Your task to perform on an android device: Open privacy settings Image 0: 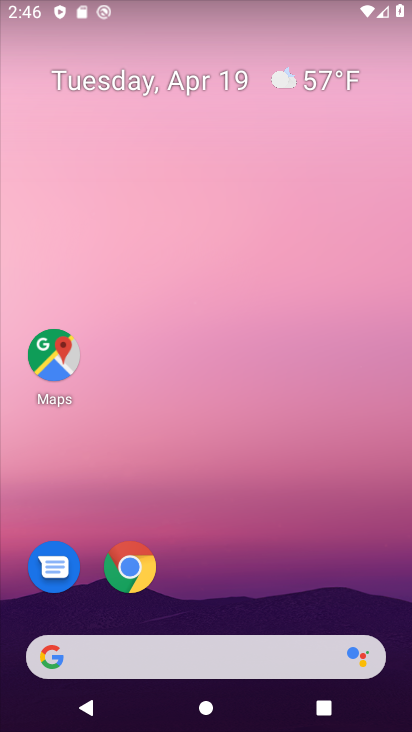
Step 0: drag from (388, 613) to (361, 86)
Your task to perform on an android device: Open privacy settings Image 1: 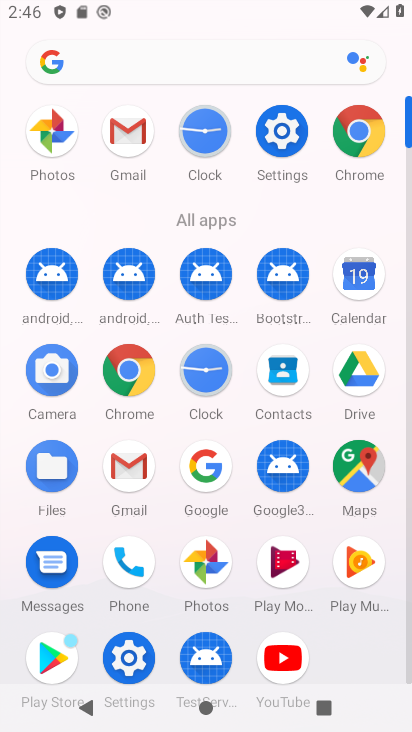
Step 1: click (276, 136)
Your task to perform on an android device: Open privacy settings Image 2: 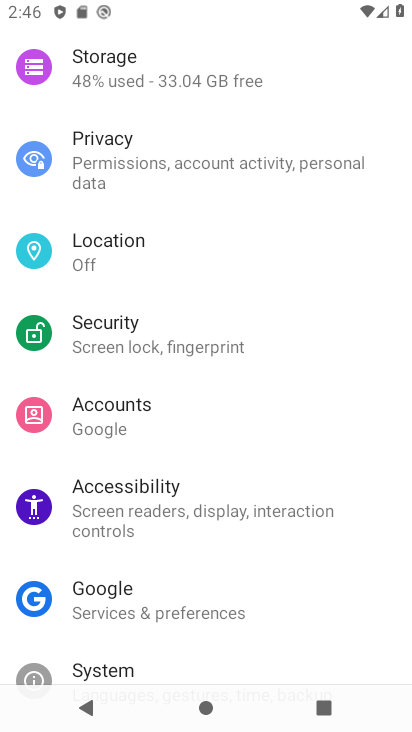
Step 2: drag from (379, 282) to (386, 406)
Your task to perform on an android device: Open privacy settings Image 3: 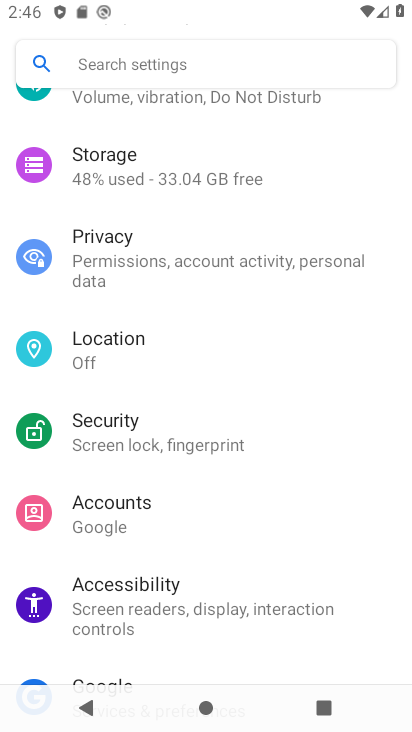
Step 3: drag from (376, 231) to (389, 422)
Your task to perform on an android device: Open privacy settings Image 4: 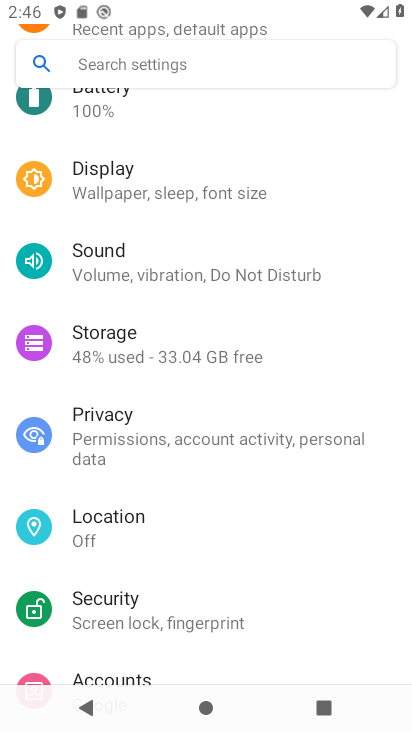
Step 4: drag from (387, 237) to (375, 434)
Your task to perform on an android device: Open privacy settings Image 5: 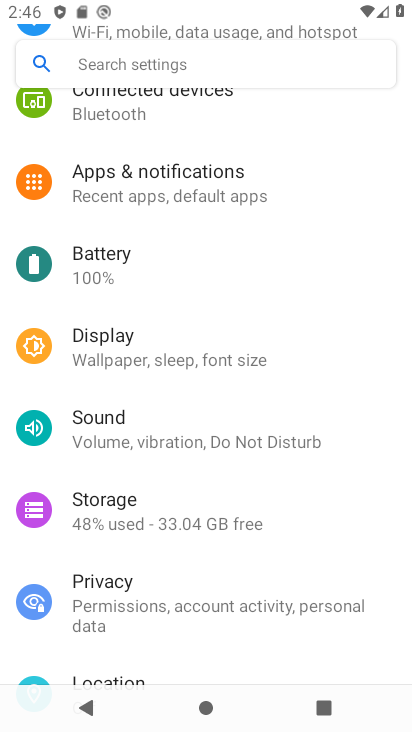
Step 5: drag from (348, 228) to (367, 500)
Your task to perform on an android device: Open privacy settings Image 6: 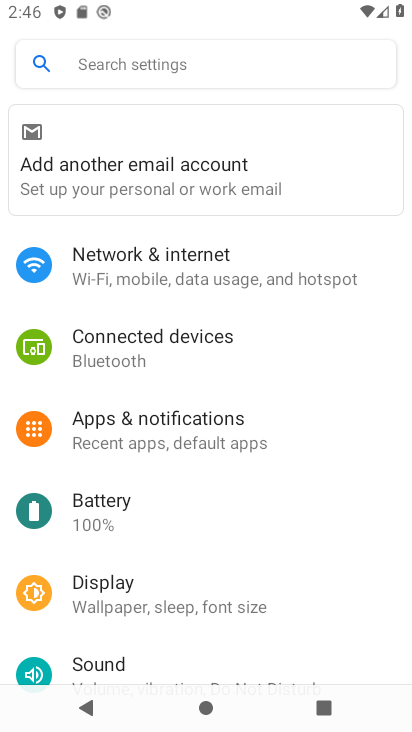
Step 6: drag from (364, 551) to (356, 353)
Your task to perform on an android device: Open privacy settings Image 7: 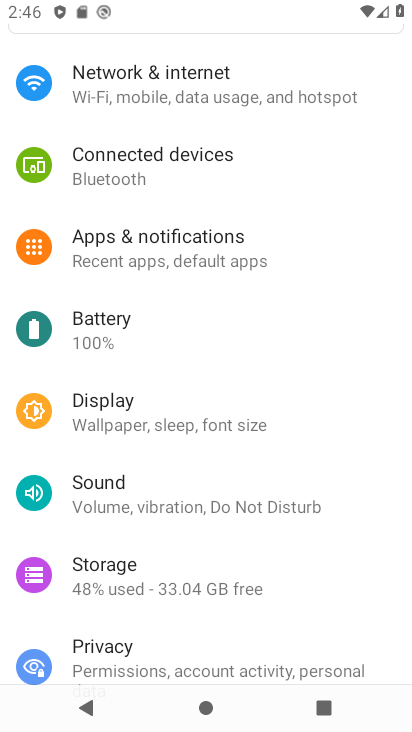
Step 7: drag from (355, 557) to (366, 279)
Your task to perform on an android device: Open privacy settings Image 8: 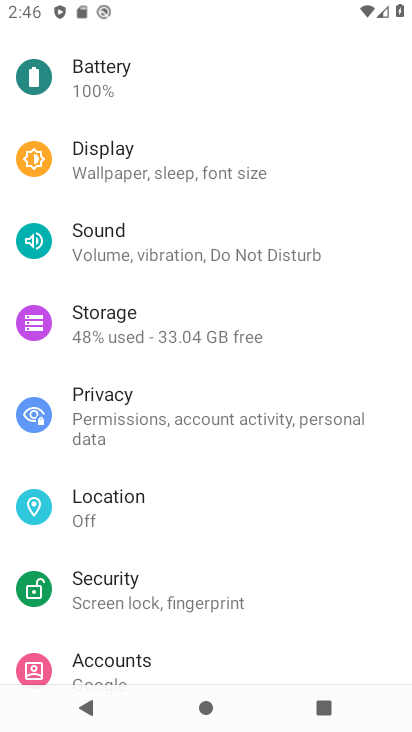
Step 8: click (163, 413)
Your task to perform on an android device: Open privacy settings Image 9: 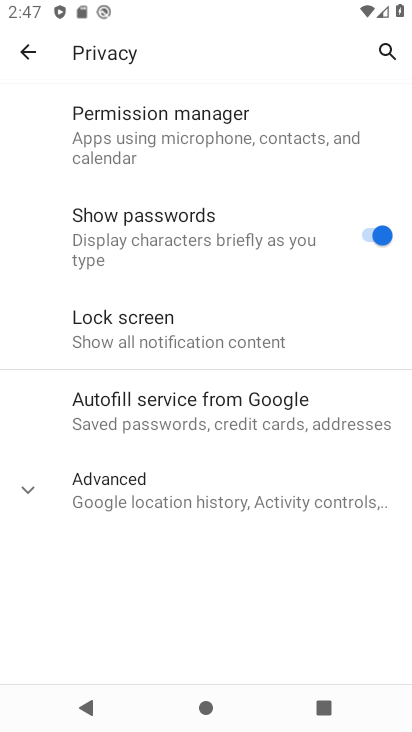
Step 9: task complete